Your task to perform on an android device: Open Android settings Image 0: 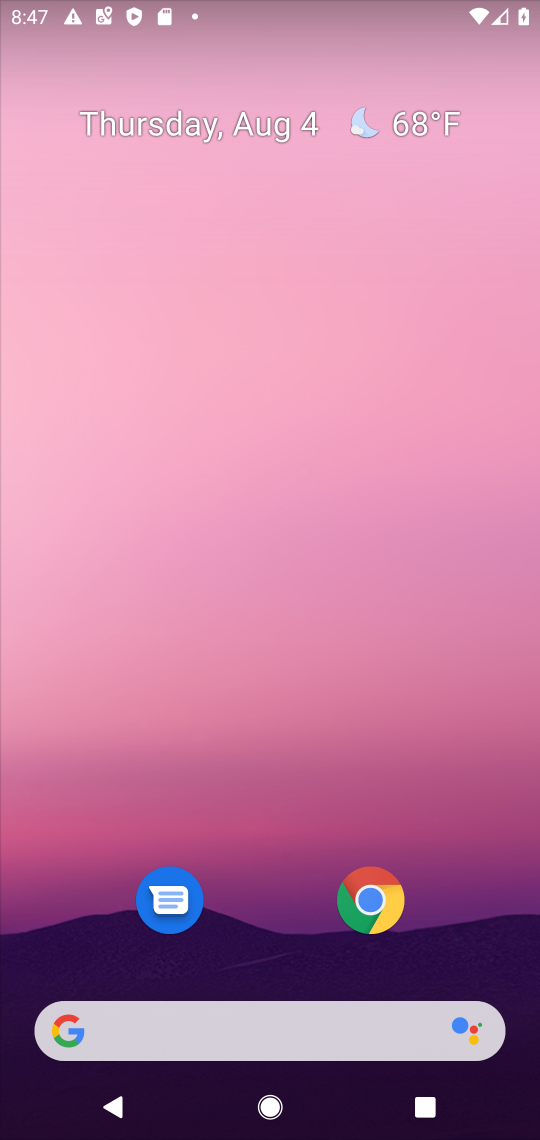
Step 0: drag from (230, 747) to (230, 328)
Your task to perform on an android device: Open Android settings Image 1: 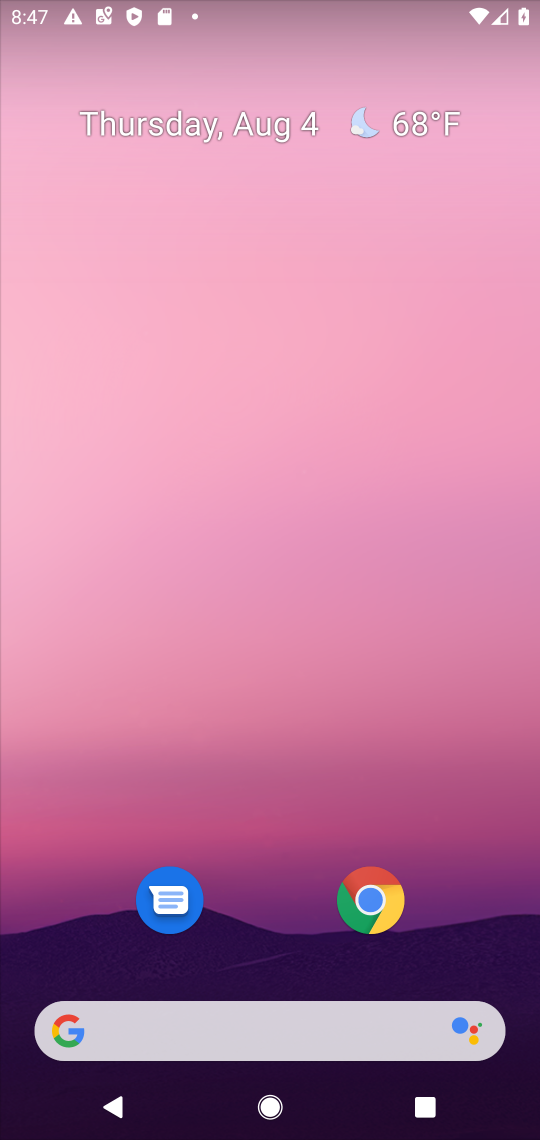
Step 1: drag from (243, 541) to (243, 98)
Your task to perform on an android device: Open Android settings Image 2: 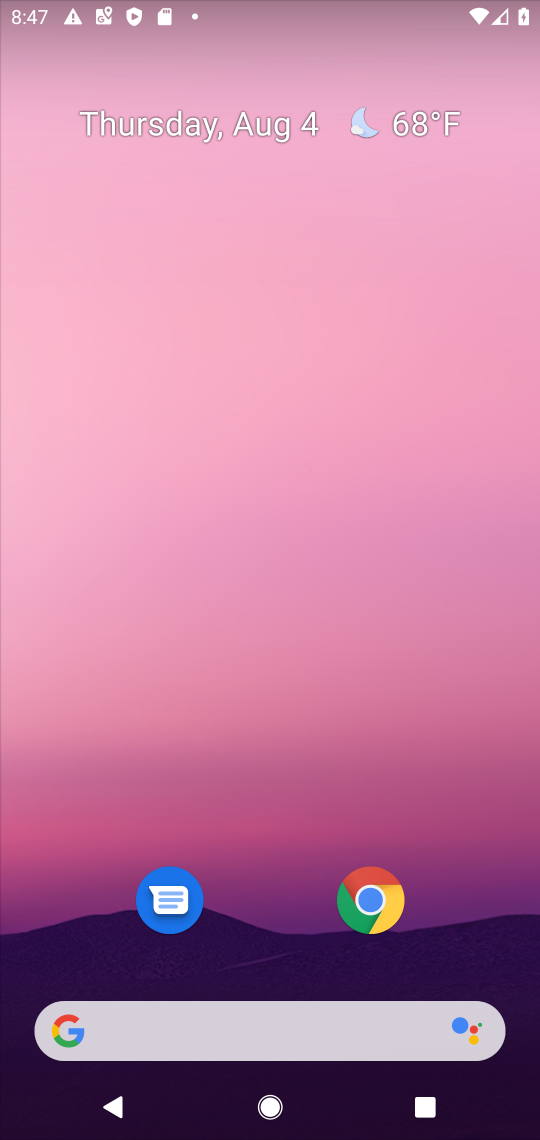
Step 2: drag from (262, 765) to (253, 238)
Your task to perform on an android device: Open Android settings Image 3: 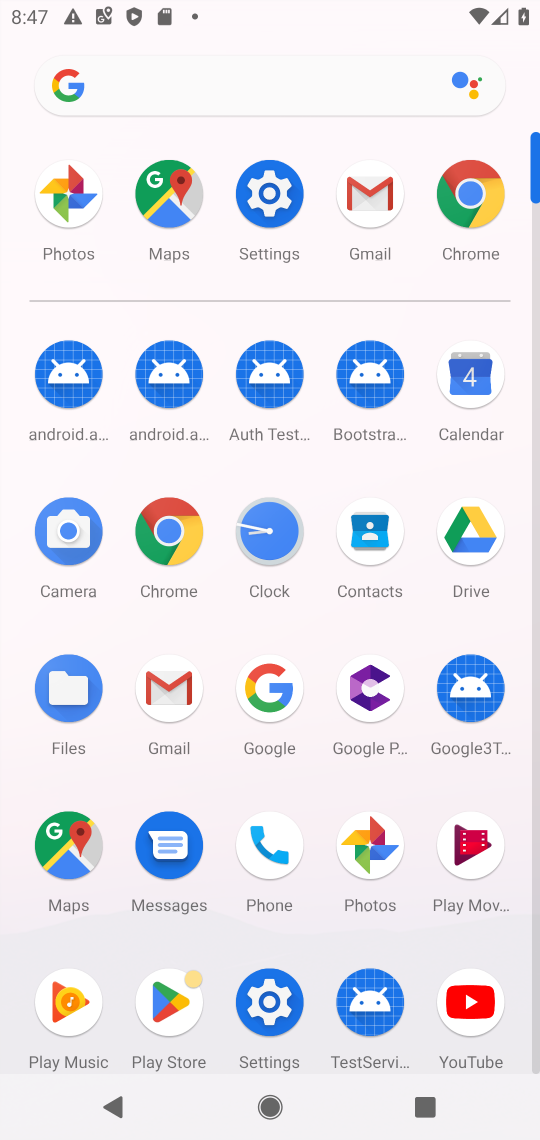
Step 3: click (265, 190)
Your task to perform on an android device: Open Android settings Image 4: 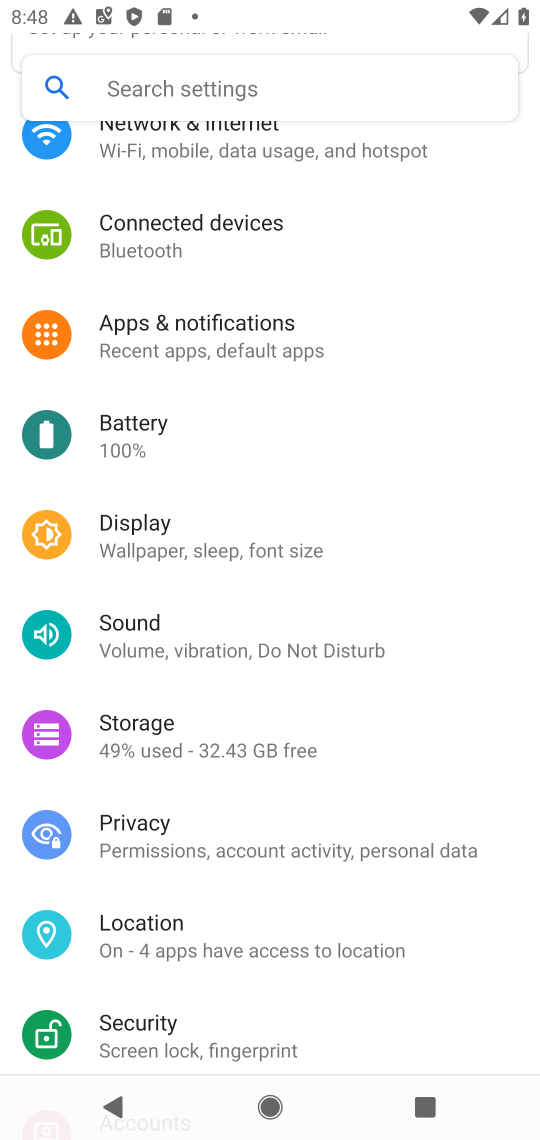
Step 4: click (282, 198)
Your task to perform on an android device: Open Android settings Image 5: 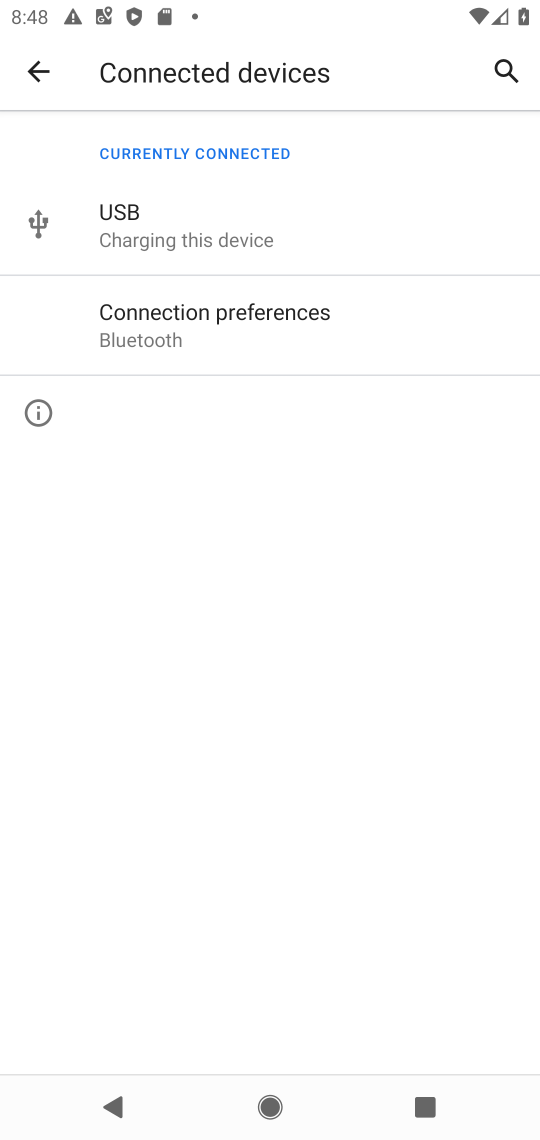
Step 5: click (50, 67)
Your task to perform on an android device: Open Android settings Image 6: 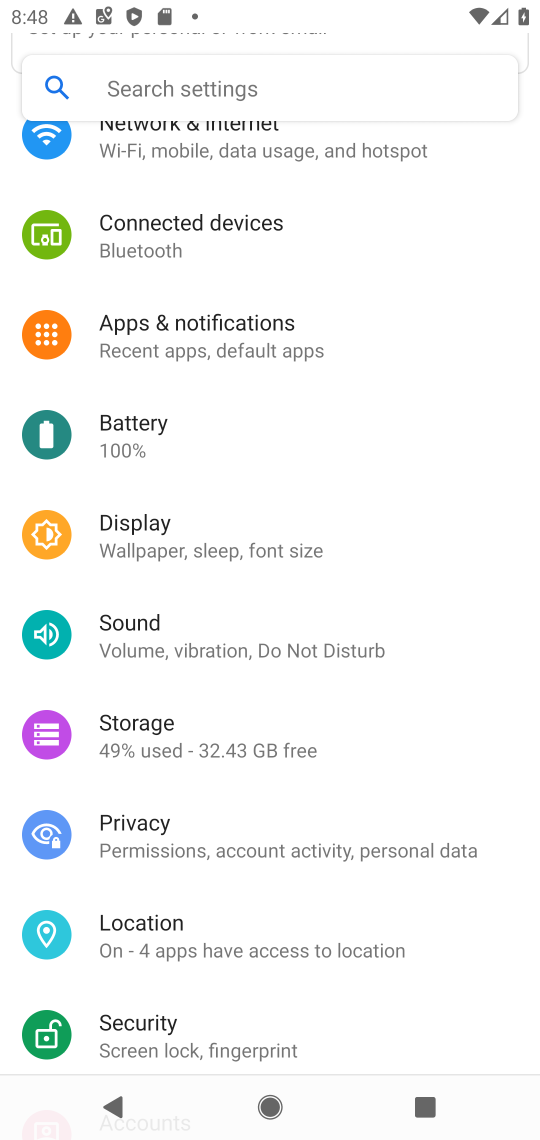
Step 6: drag from (298, 849) to (307, 467)
Your task to perform on an android device: Open Android settings Image 7: 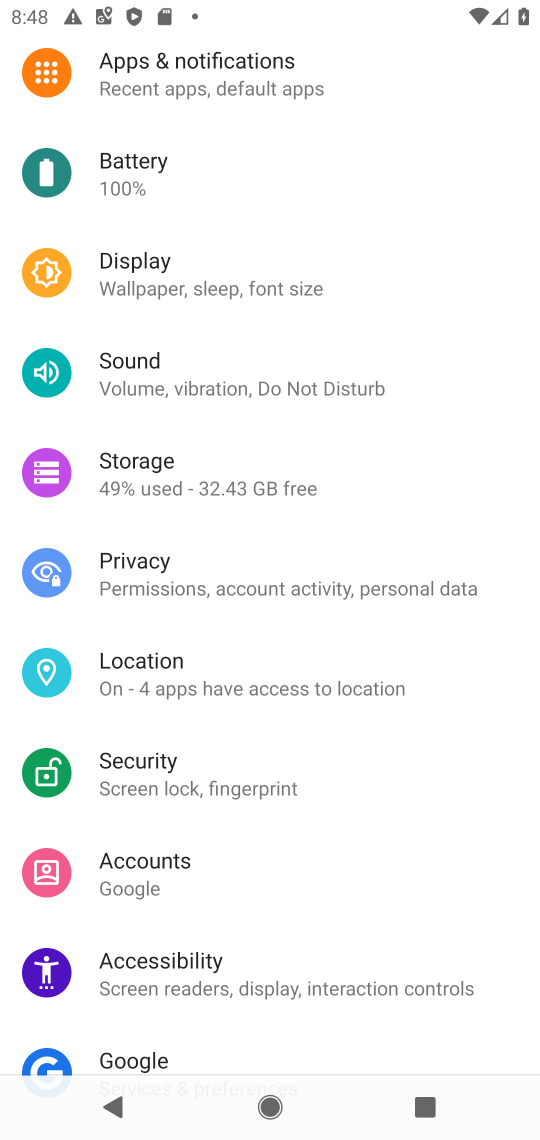
Step 7: drag from (195, 628) to (209, 542)
Your task to perform on an android device: Open Android settings Image 8: 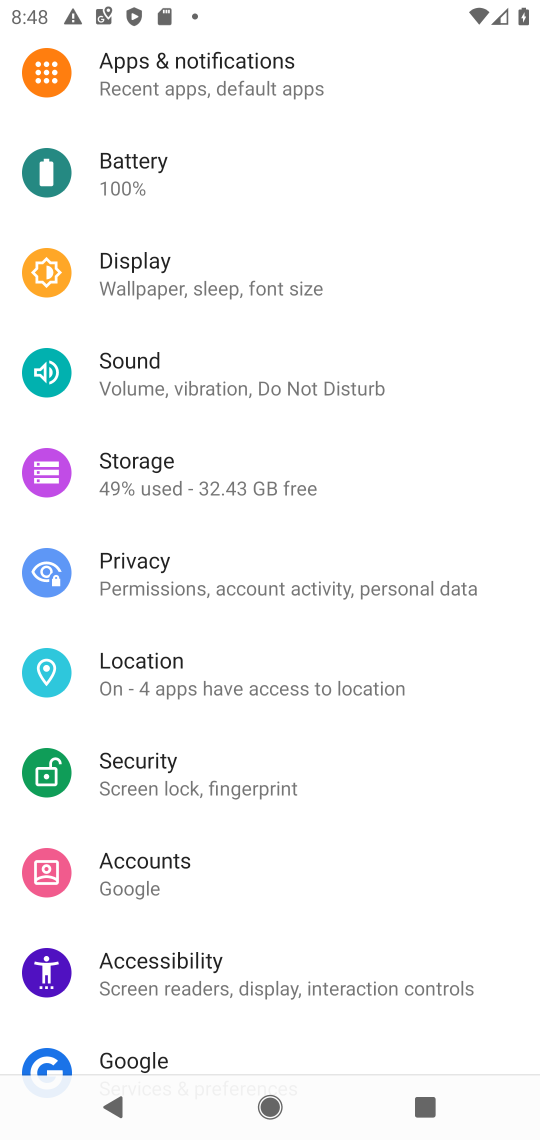
Step 8: drag from (241, 926) to (243, 467)
Your task to perform on an android device: Open Android settings Image 9: 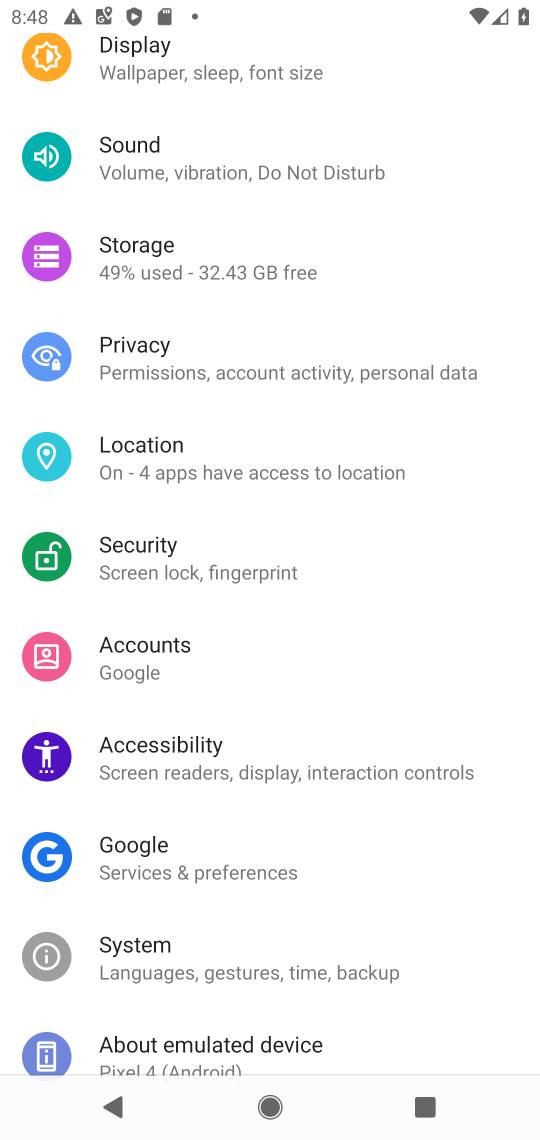
Step 9: click (180, 1050)
Your task to perform on an android device: Open Android settings Image 10: 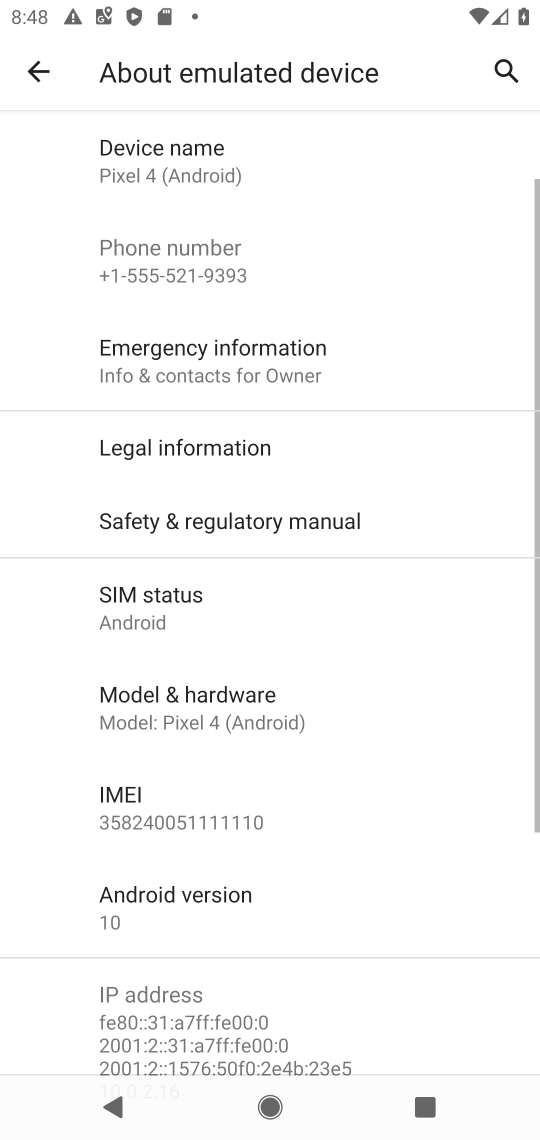
Step 10: click (157, 913)
Your task to perform on an android device: Open Android settings Image 11: 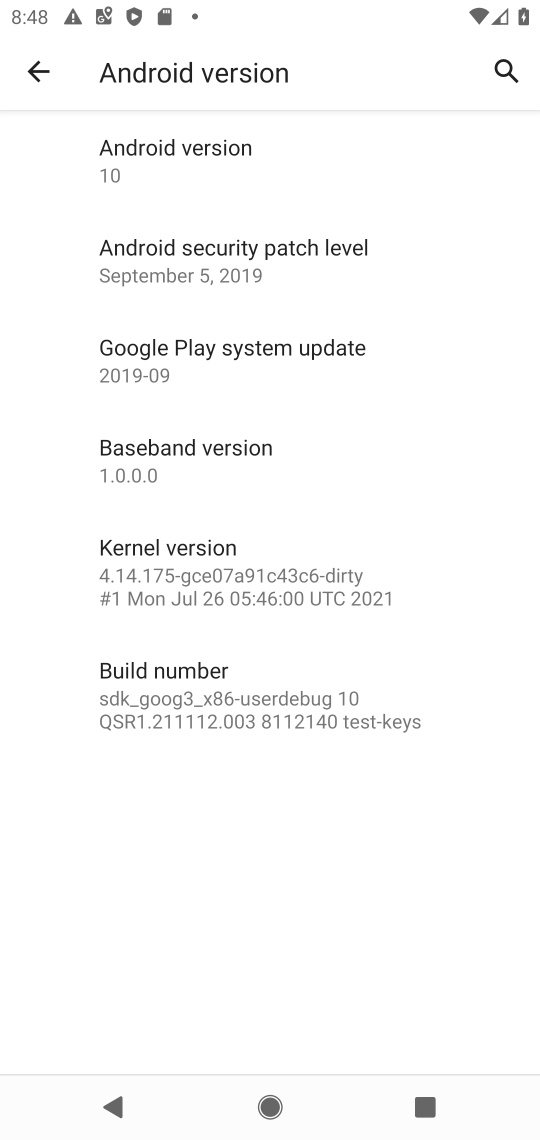
Step 11: task complete